Your task to perform on an android device: Open my contact list Image 0: 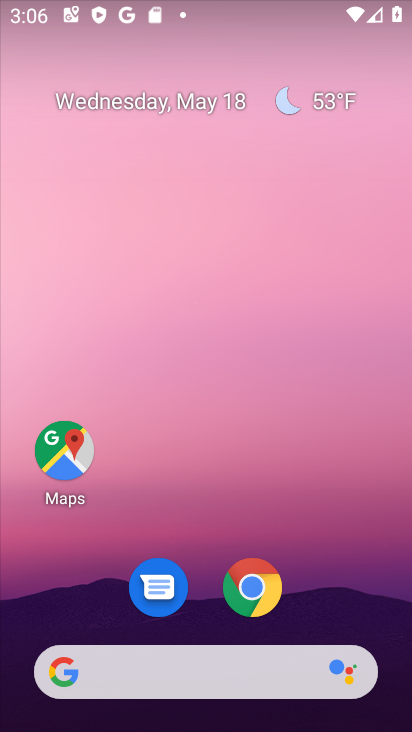
Step 0: drag from (258, 593) to (308, 52)
Your task to perform on an android device: Open my contact list Image 1: 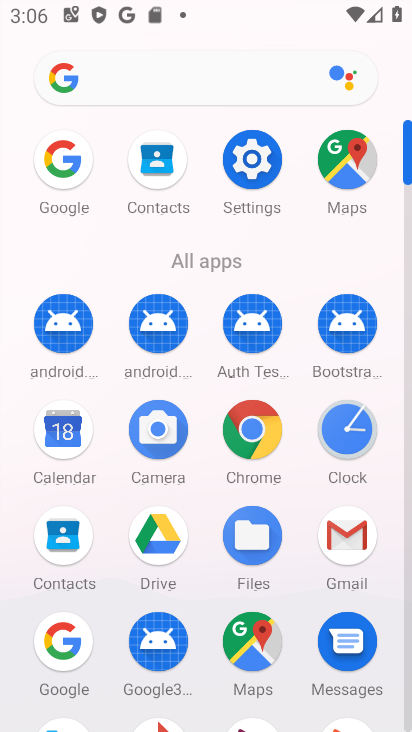
Step 1: click (78, 549)
Your task to perform on an android device: Open my contact list Image 2: 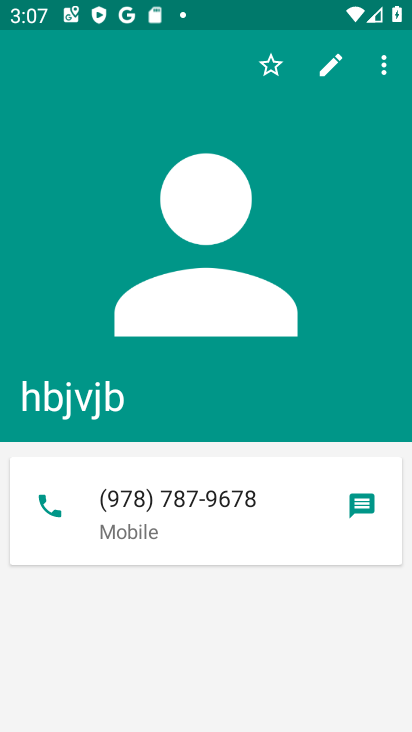
Step 2: task complete